Your task to perform on an android device: Go to network settings Image 0: 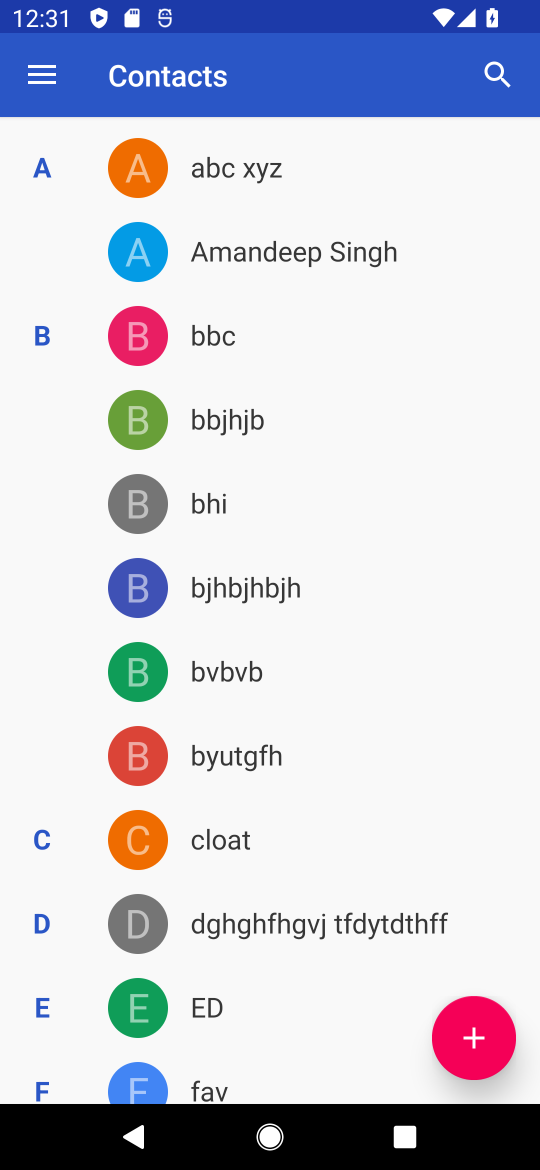
Step 0: press back button
Your task to perform on an android device: Go to network settings Image 1: 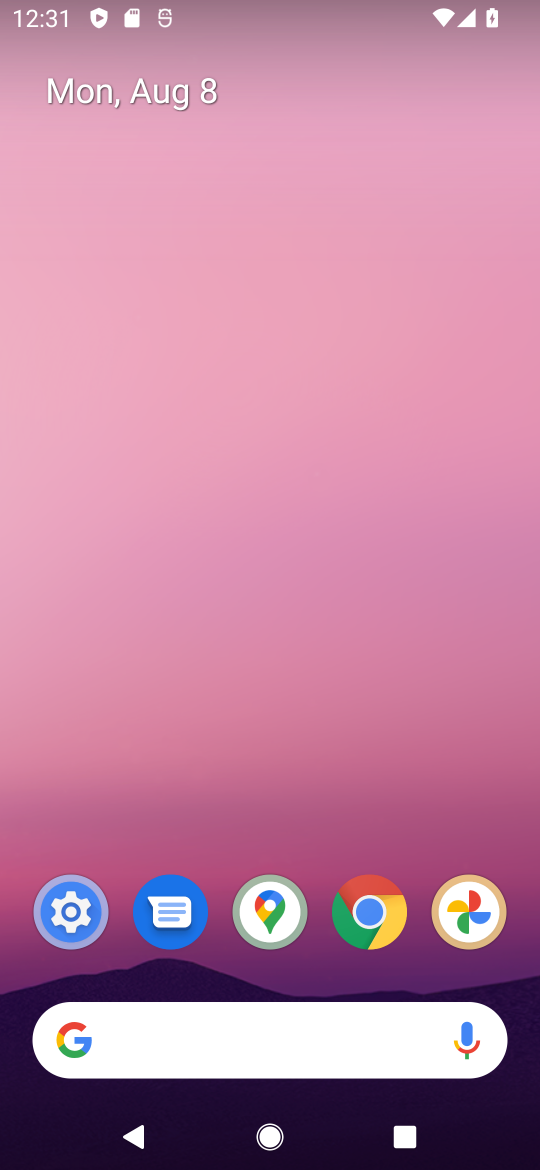
Step 1: click (60, 925)
Your task to perform on an android device: Go to network settings Image 2: 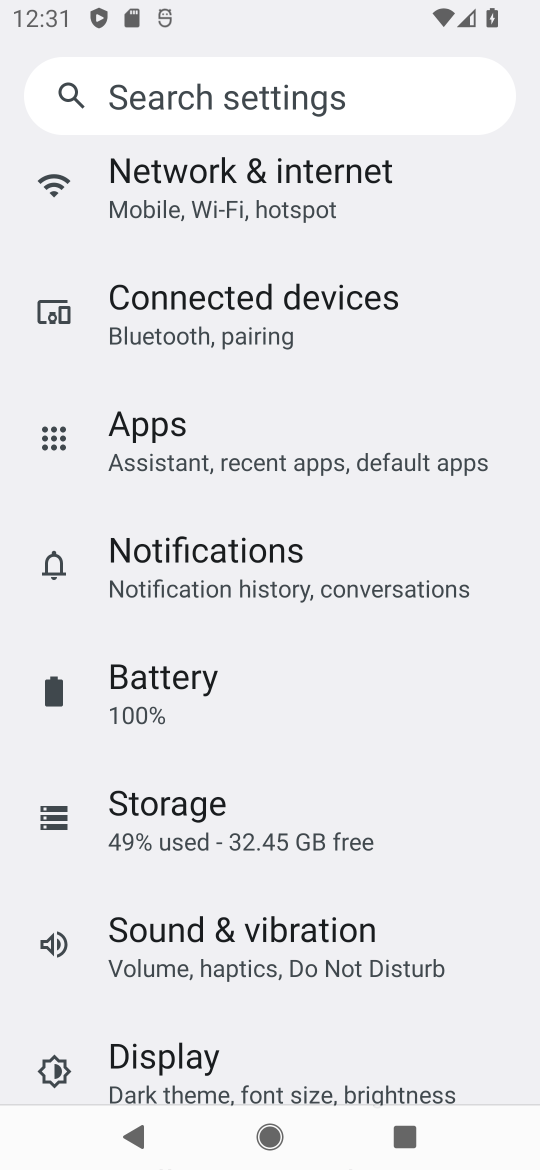
Step 2: click (301, 161)
Your task to perform on an android device: Go to network settings Image 3: 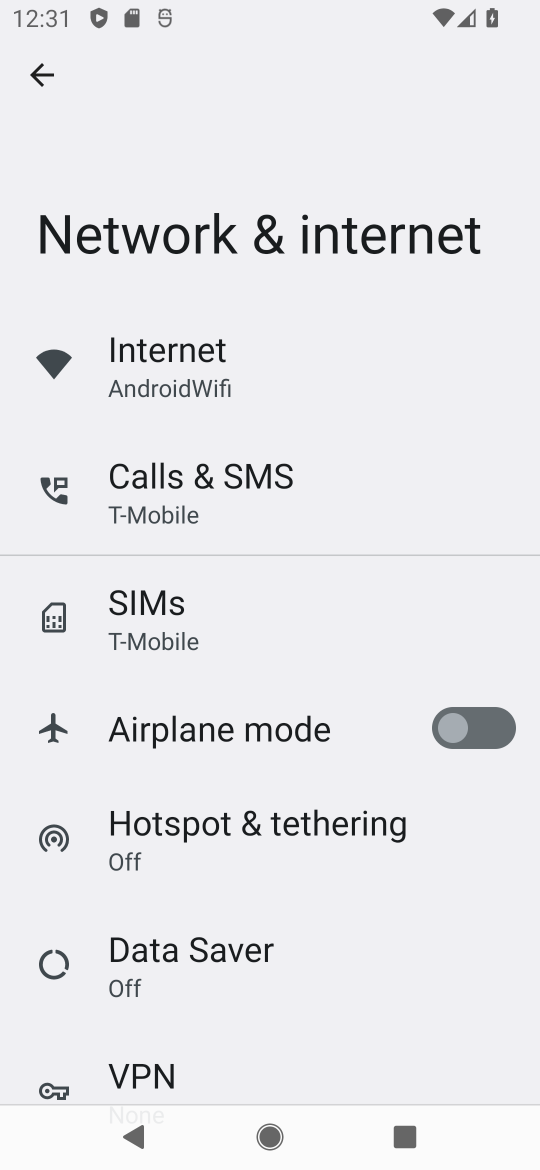
Step 3: task complete